Your task to perform on an android device: see sites visited before in the chrome app Image 0: 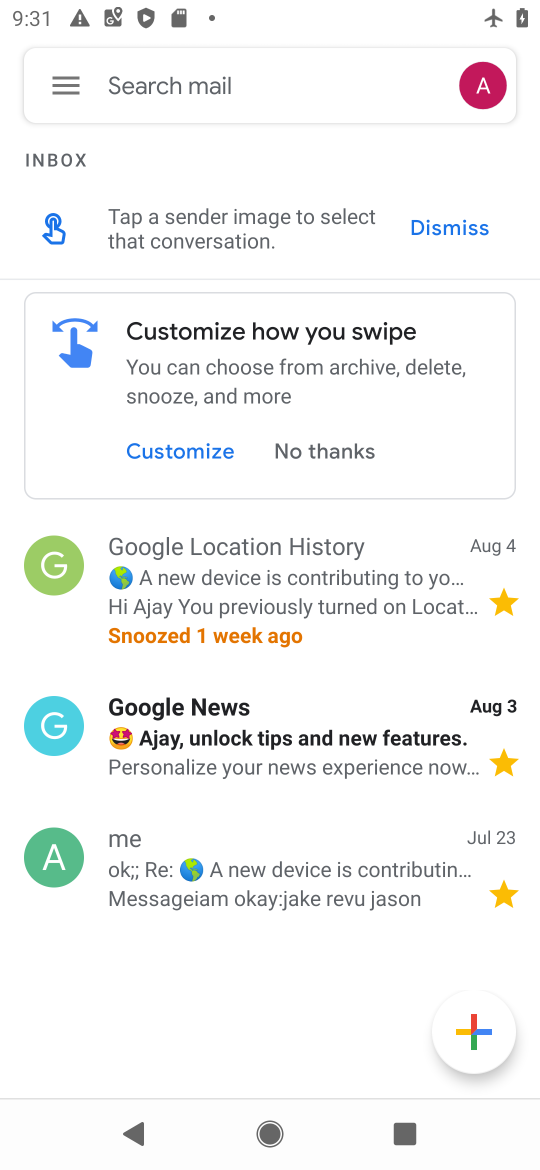
Step 0: press home button
Your task to perform on an android device: see sites visited before in the chrome app Image 1: 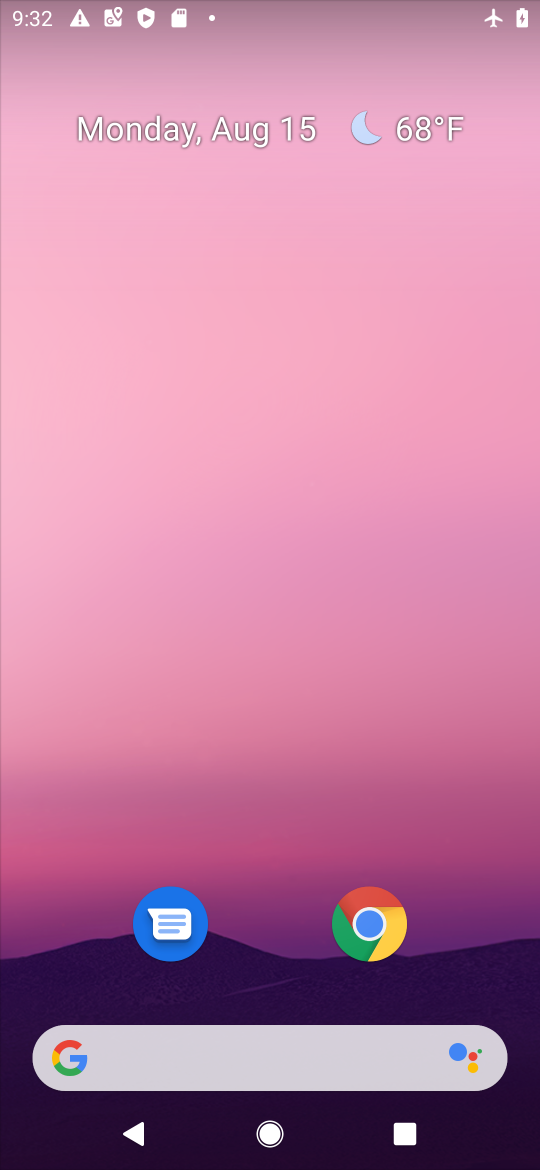
Step 1: click (376, 928)
Your task to perform on an android device: see sites visited before in the chrome app Image 2: 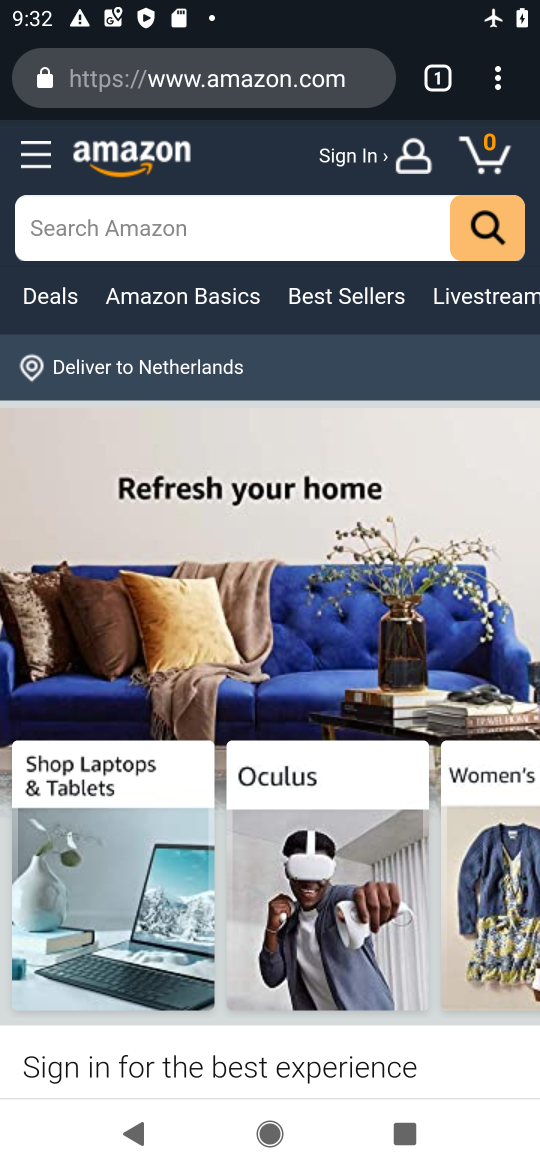
Step 2: click (492, 95)
Your task to perform on an android device: see sites visited before in the chrome app Image 3: 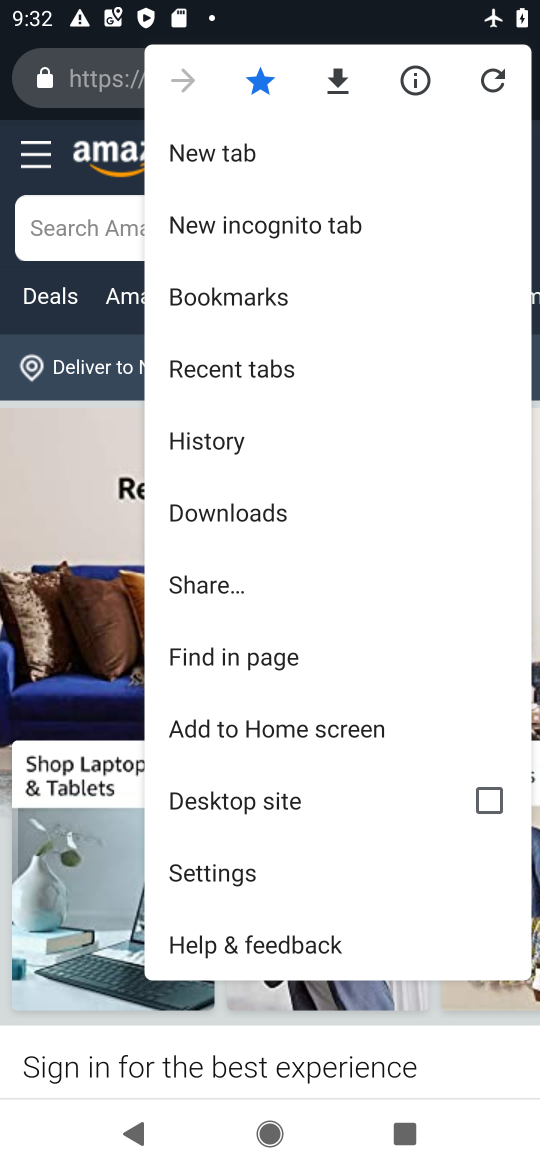
Step 3: click (193, 434)
Your task to perform on an android device: see sites visited before in the chrome app Image 4: 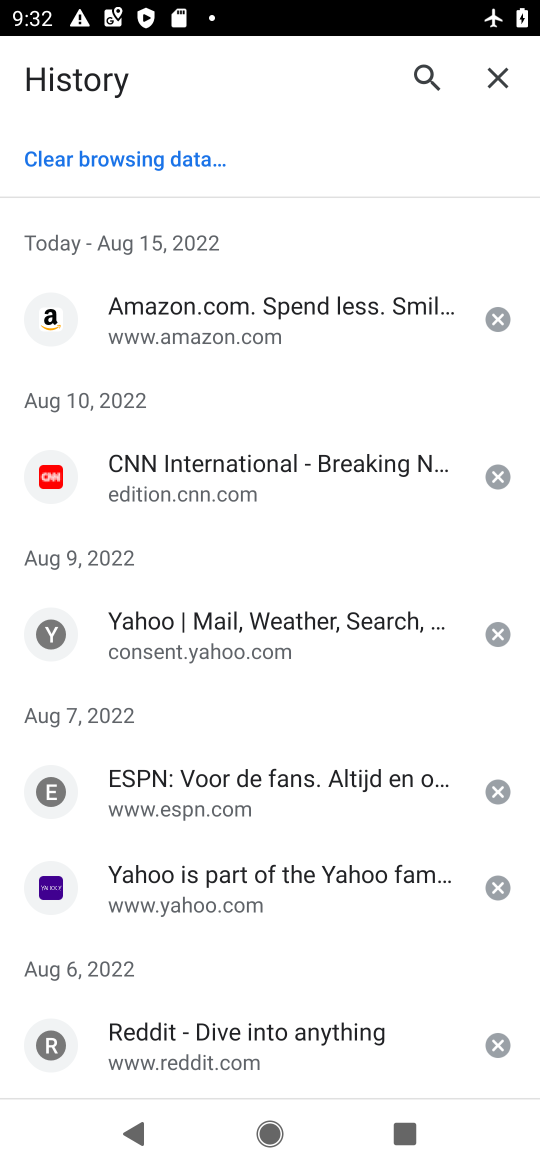
Step 4: task complete